Your task to perform on an android device: What's the weather? Image 0: 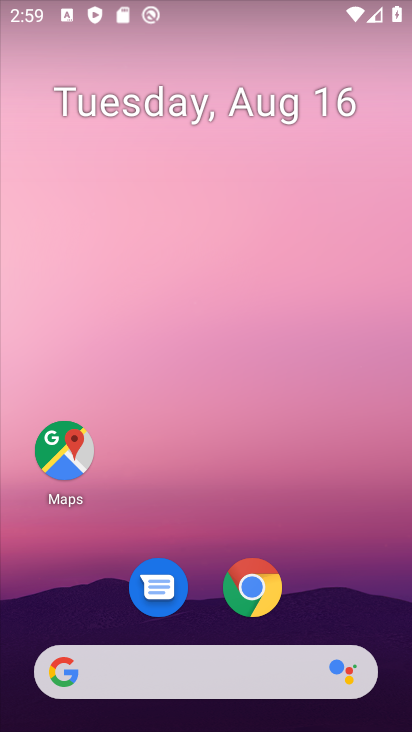
Step 0: click (176, 674)
Your task to perform on an android device: What's the weather? Image 1: 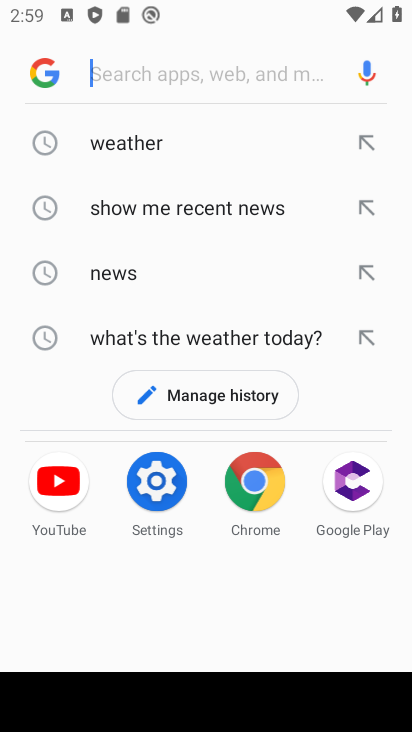
Step 1: click (132, 145)
Your task to perform on an android device: What's the weather? Image 2: 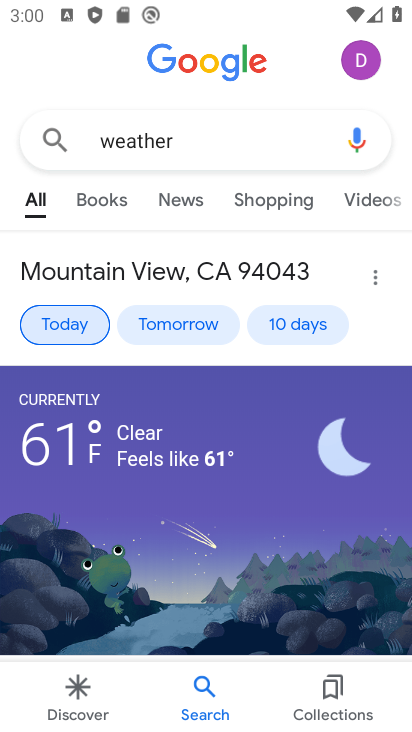
Step 2: task complete